Your task to perform on an android device: Show the shopping cart on costco.com. Add "panasonic triple a" to the cart on costco.com Image 0: 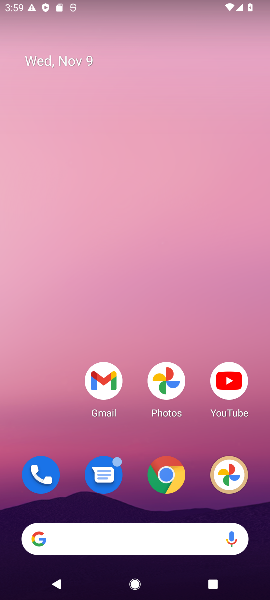
Step 0: drag from (115, 496) to (114, 143)
Your task to perform on an android device: Show the shopping cart on costco.com. Add "panasonic triple a" to the cart on costco.com Image 1: 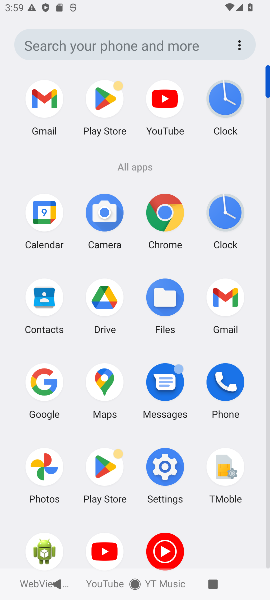
Step 1: click (161, 225)
Your task to perform on an android device: Show the shopping cart on costco.com. Add "panasonic triple a" to the cart on costco.com Image 2: 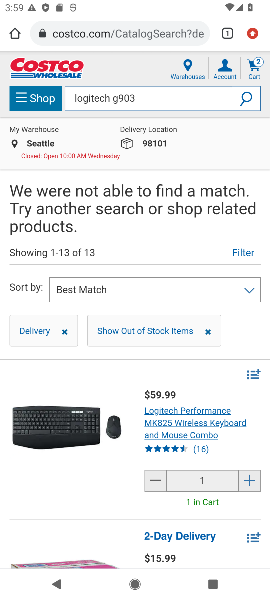
Step 2: click (87, 34)
Your task to perform on an android device: Show the shopping cart on costco.com. Add "panasonic triple a" to the cart on costco.com Image 3: 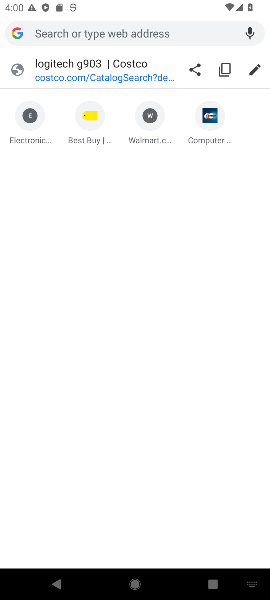
Step 3: type "logitech g903"
Your task to perform on an android device: Show the shopping cart on costco.com. Add "panasonic triple a" to the cart on costco.com Image 4: 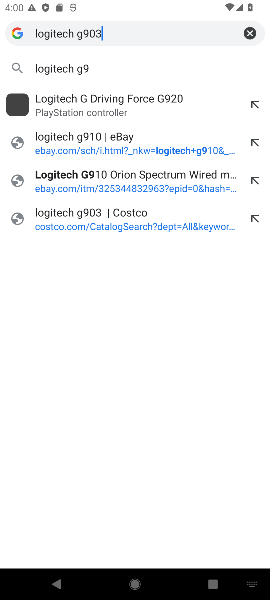
Step 4: press enter
Your task to perform on an android device: Show the shopping cart on costco.com. Add "panasonic triple a" to the cart on costco.com Image 5: 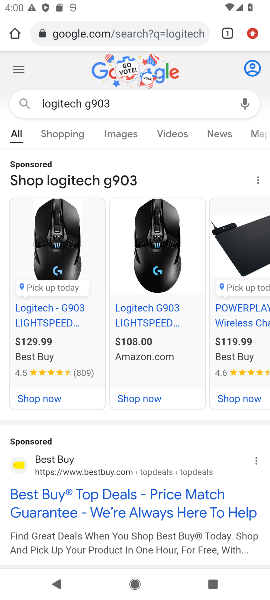
Step 5: click (106, 39)
Your task to perform on an android device: Show the shopping cart on costco.com. Add "panasonic triple a" to the cart on costco.com Image 6: 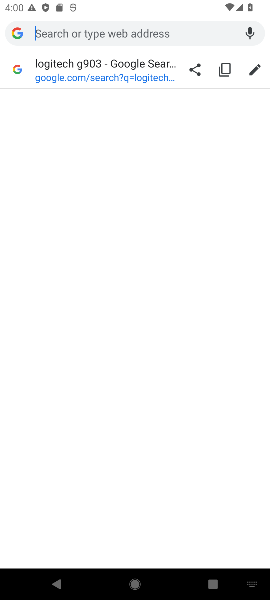
Step 6: type "costco.com"
Your task to perform on an android device: Show the shopping cart on costco.com. Add "panasonic triple a" to the cart on costco.com Image 7: 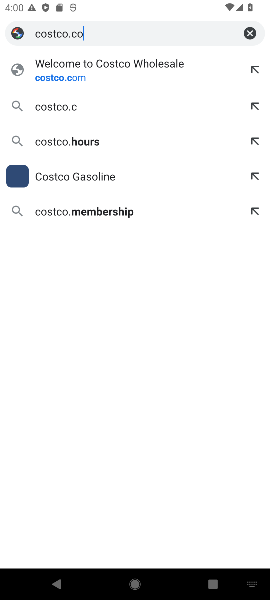
Step 7: press enter
Your task to perform on an android device: Show the shopping cart on costco.com. Add "panasonic triple a" to the cart on costco.com Image 8: 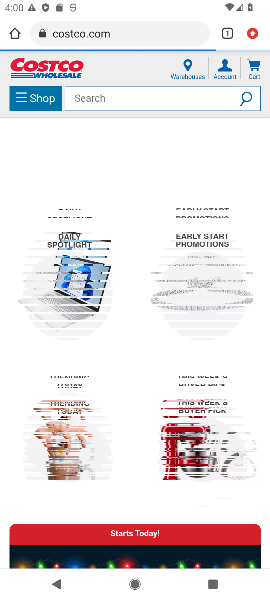
Step 8: click (122, 94)
Your task to perform on an android device: Show the shopping cart on costco.com. Add "panasonic triple a" to the cart on costco.com Image 9: 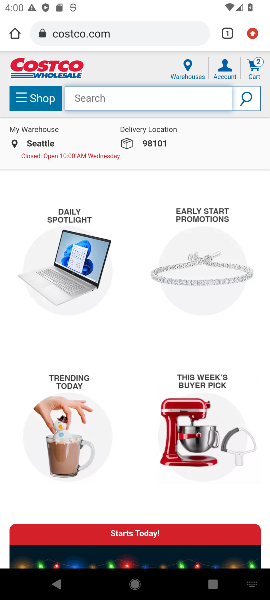
Step 9: type "panasonic triple a"
Your task to perform on an android device: Show the shopping cart on costco.com. Add "panasonic triple a" to the cart on costco.com Image 10: 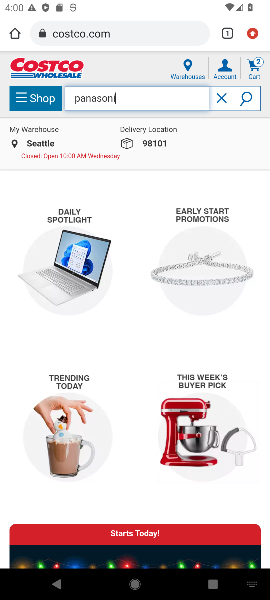
Step 10: press enter
Your task to perform on an android device: Show the shopping cart on costco.com. Add "panasonic triple a" to the cart on costco.com Image 11: 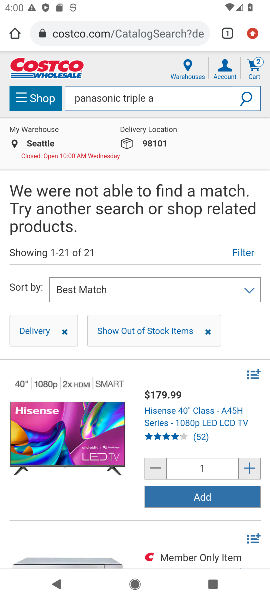
Step 11: click (210, 501)
Your task to perform on an android device: Show the shopping cart on costco.com. Add "panasonic triple a" to the cart on costco.com Image 12: 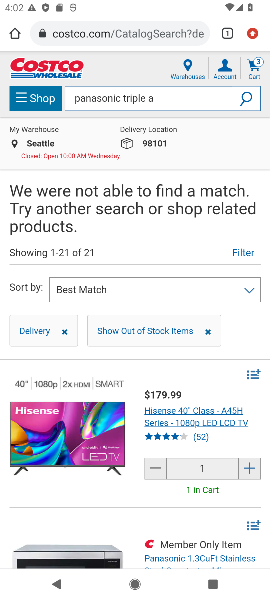
Step 12: task complete